Your task to perform on an android device: Go to calendar. Show me events next week Image 0: 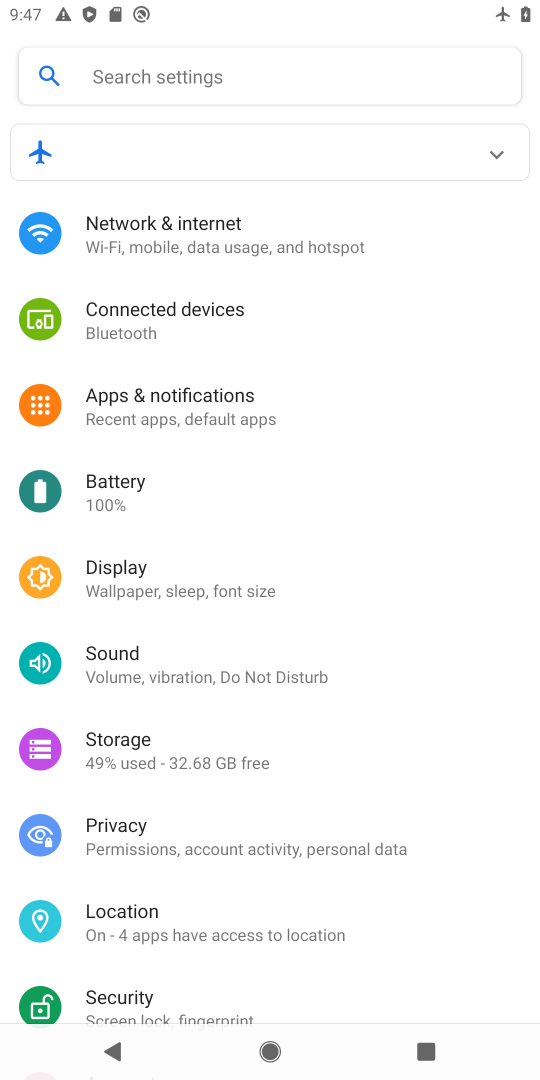
Step 0: press home button
Your task to perform on an android device: Go to calendar. Show me events next week Image 1: 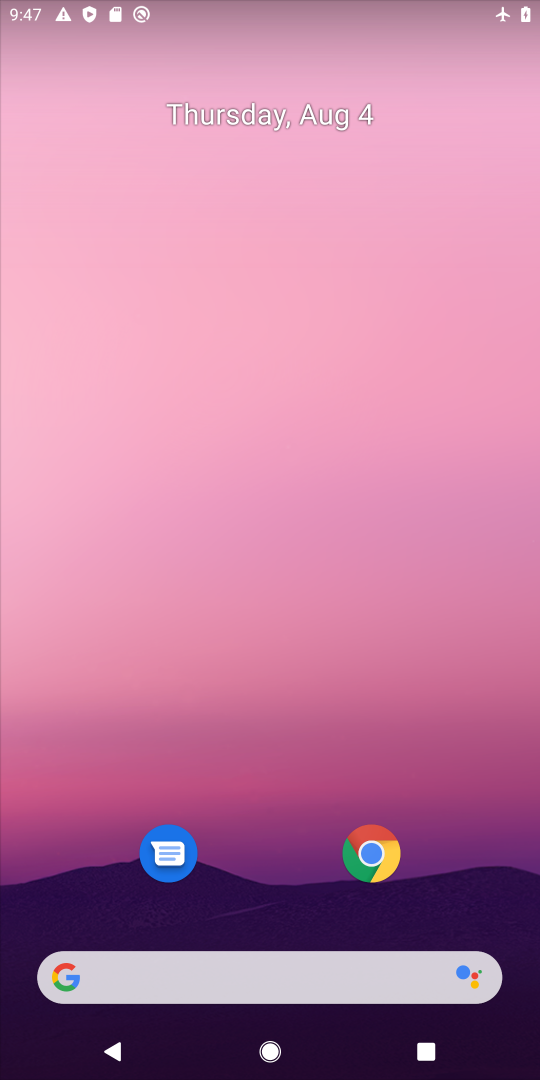
Step 1: click (234, 52)
Your task to perform on an android device: Go to calendar. Show me events next week Image 2: 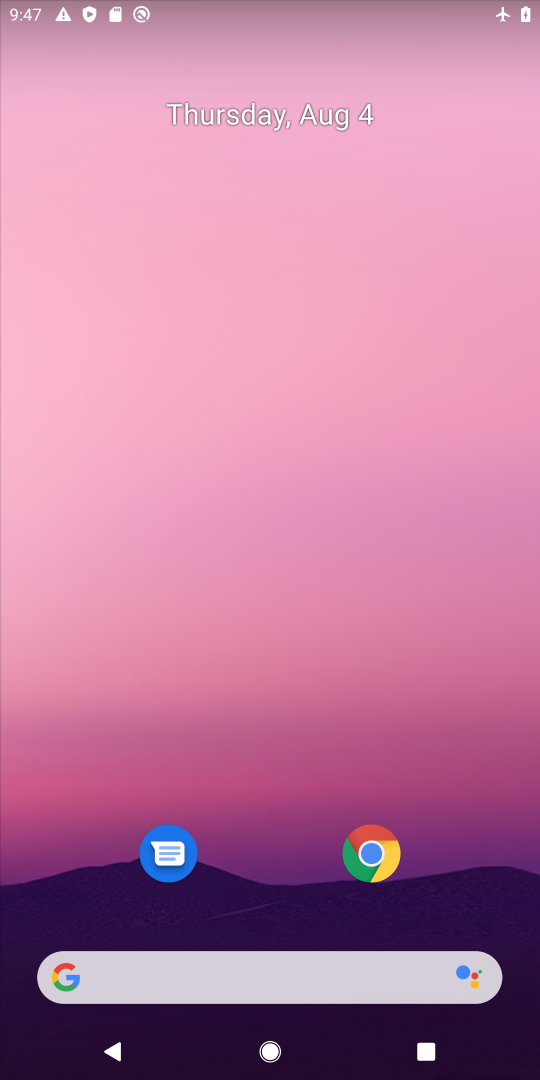
Step 2: drag from (225, 916) to (251, 1)
Your task to perform on an android device: Go to calendar. Show me events next week Image 3: 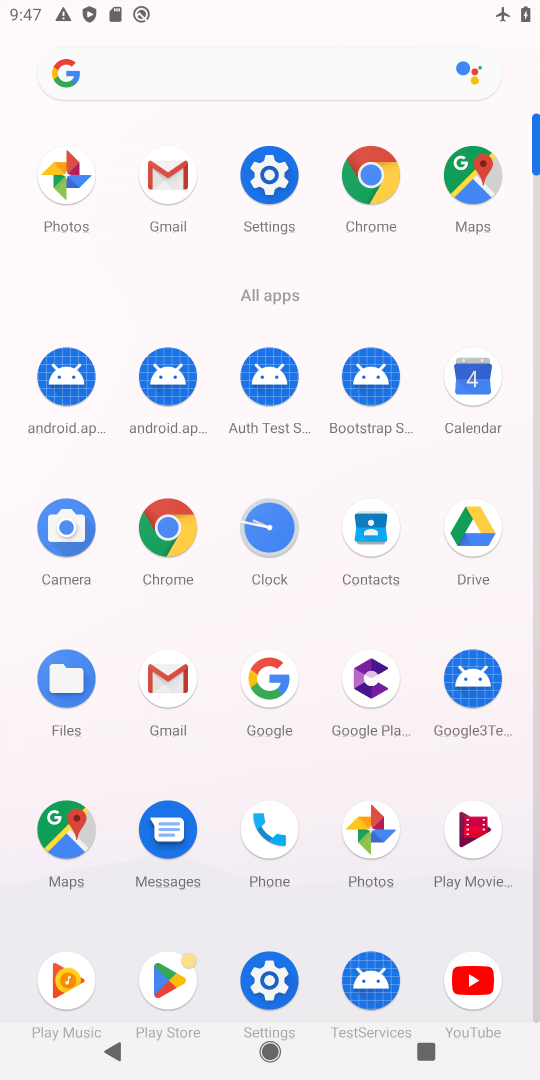
Step 3: click (466, 421)
Your task to perform on an android device: Go to calendar. Show me events next week Image 4: 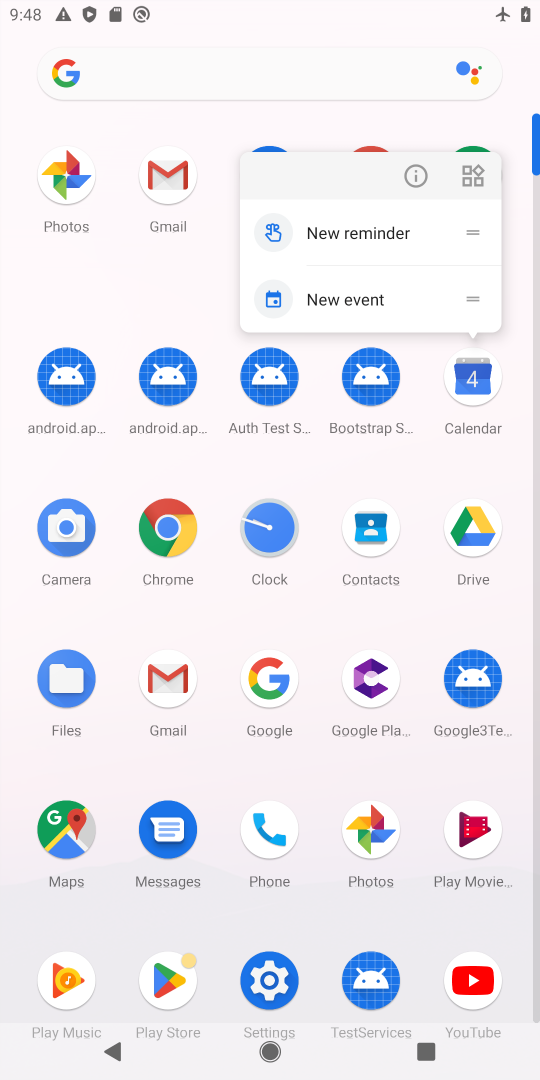
Step 4: click (466, 421)
Your task to perform on an android device: Go to calendar. Show me events next week Image 5: 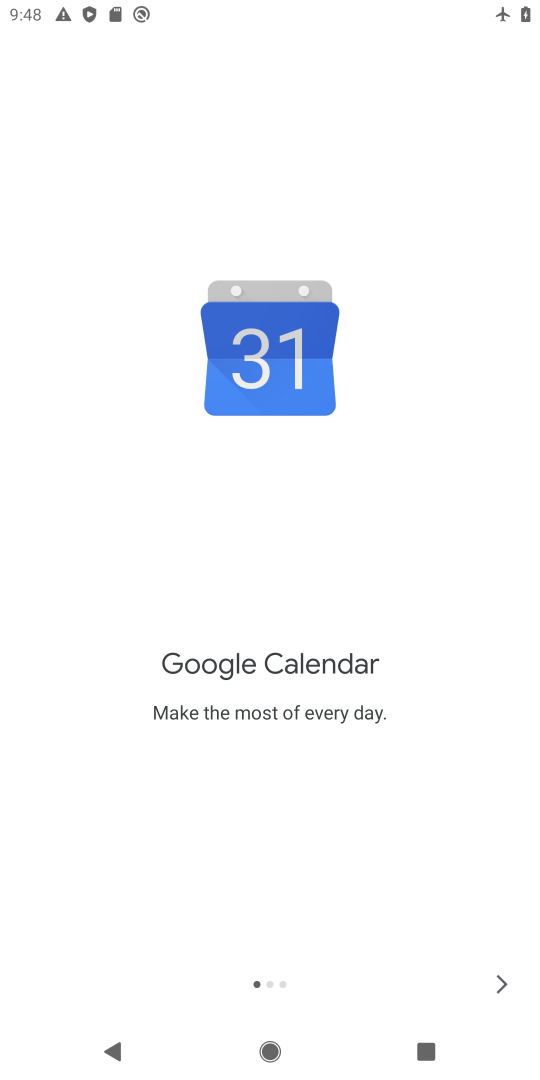
Step 5: click (493, 974)
Your task to perform on an android device: Go to calendar. Show me events next week Image 6: 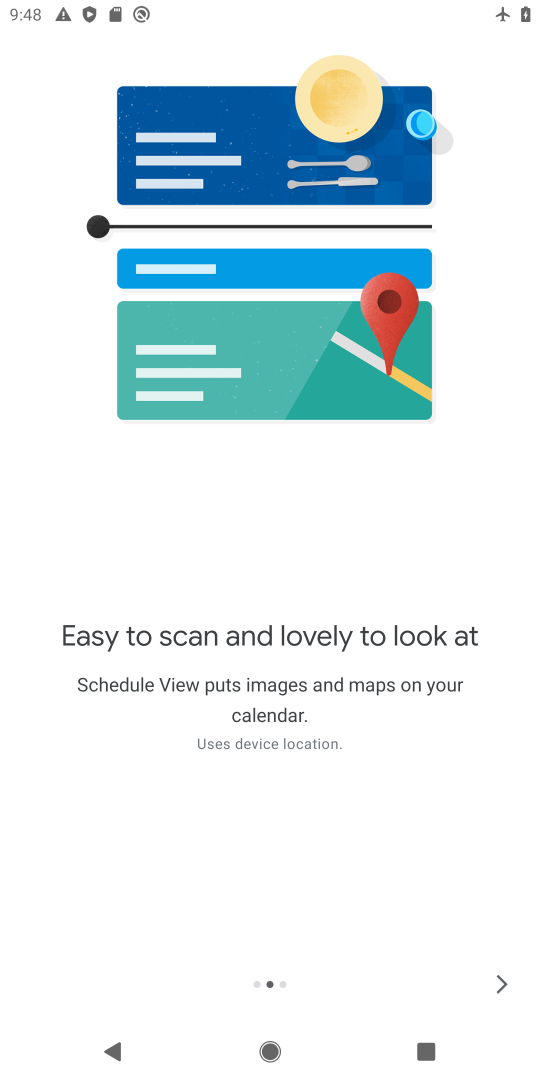
Step 6: click (492, 986)
Your task to perform on an android device: Go to calendar. Show me events next week Image 7: 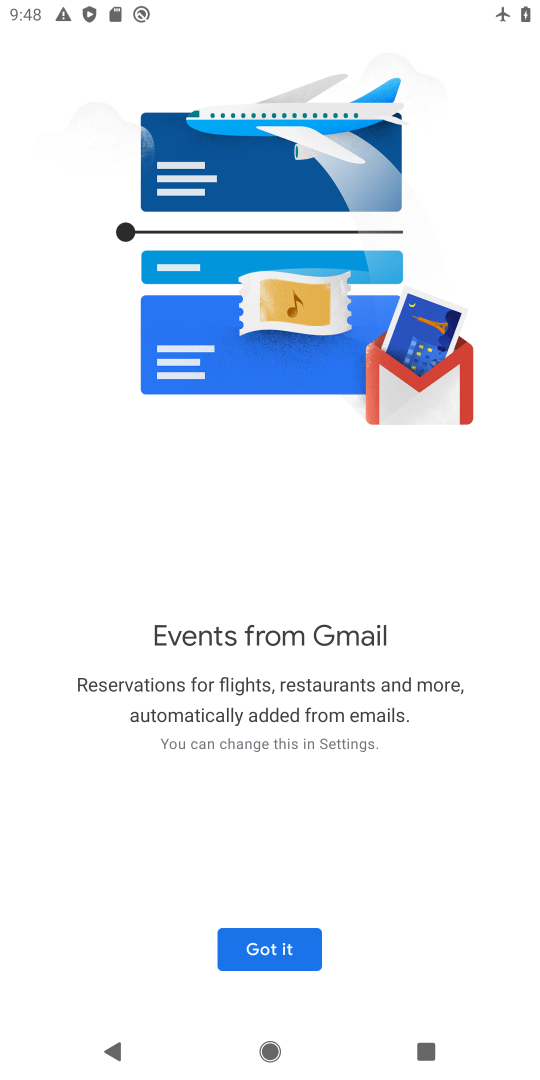
Step 7: click (283, 941)
Your task to perform on an android device: Go to calendar. Show me events next week Image 8: 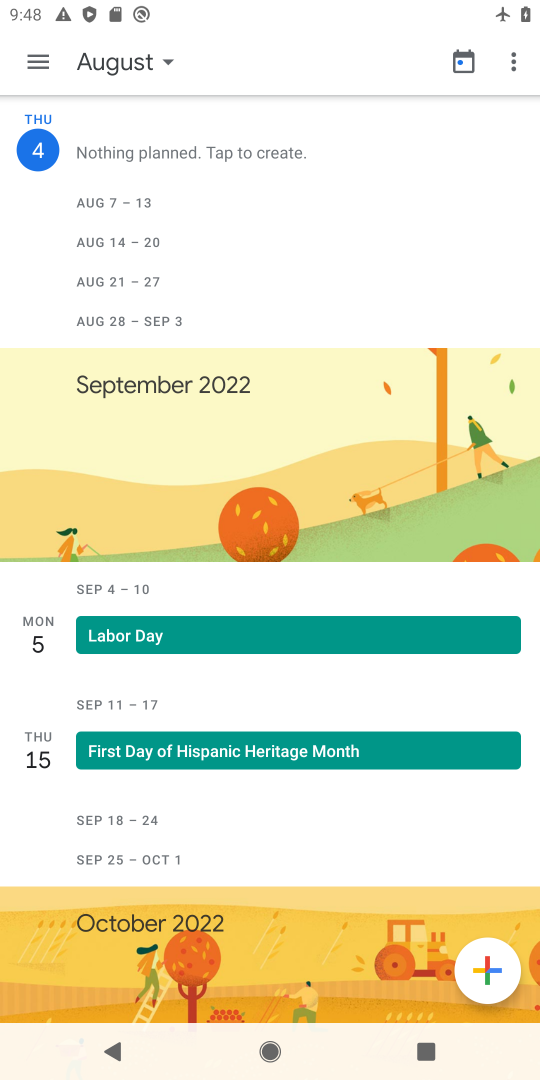
Step 8: click (36, 63)
Your task to perform on an android device: Go to calendar. Show me events next week Image 9: 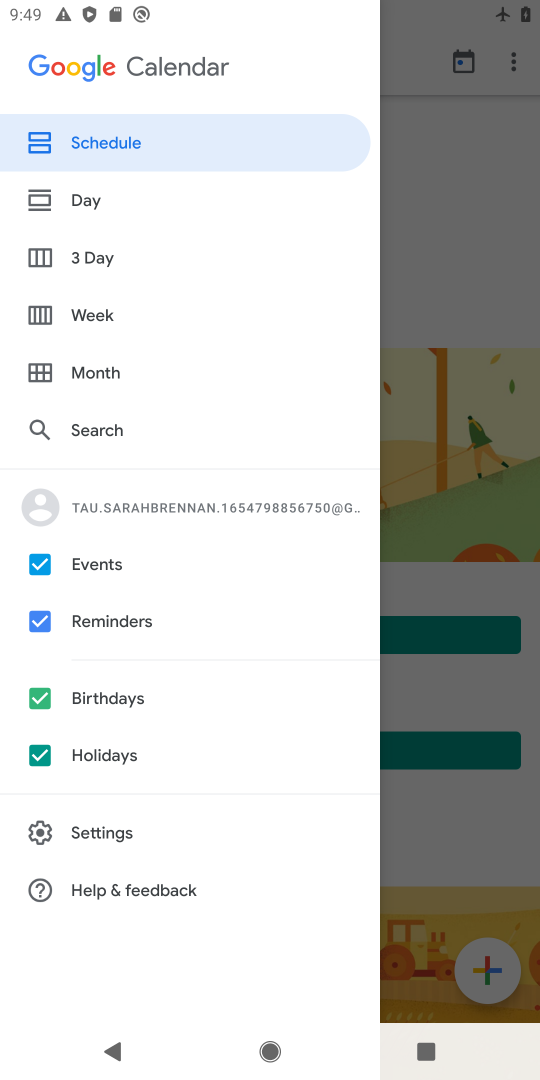
Step 9: click (123, 614)
Your task to perform on an android device: Go to calendar. Show me events next week Image 10: 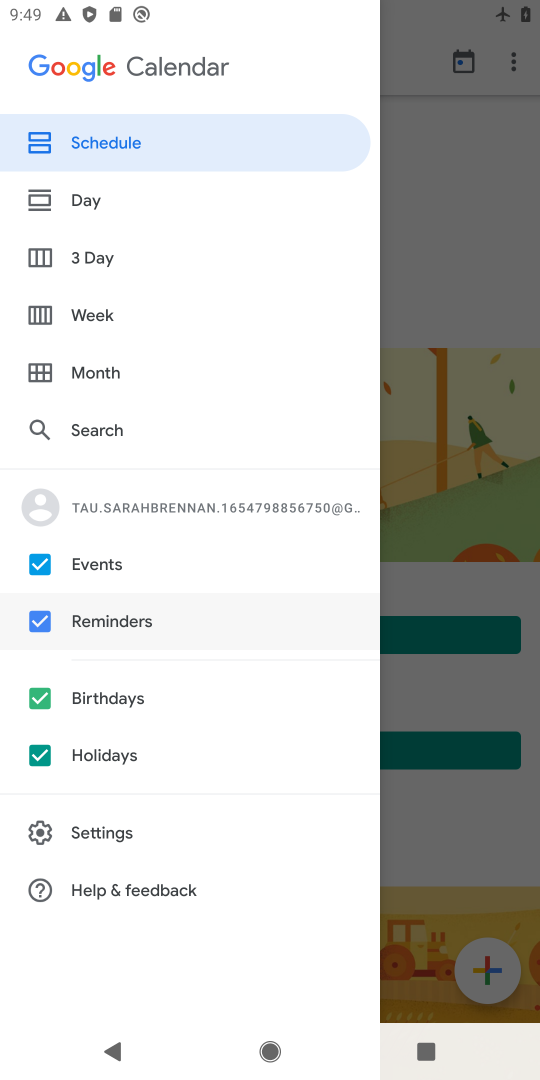
Step 10: click (106, 702)
Your task to perform on an android device: Go to calendar. Show me events next week Image 11: 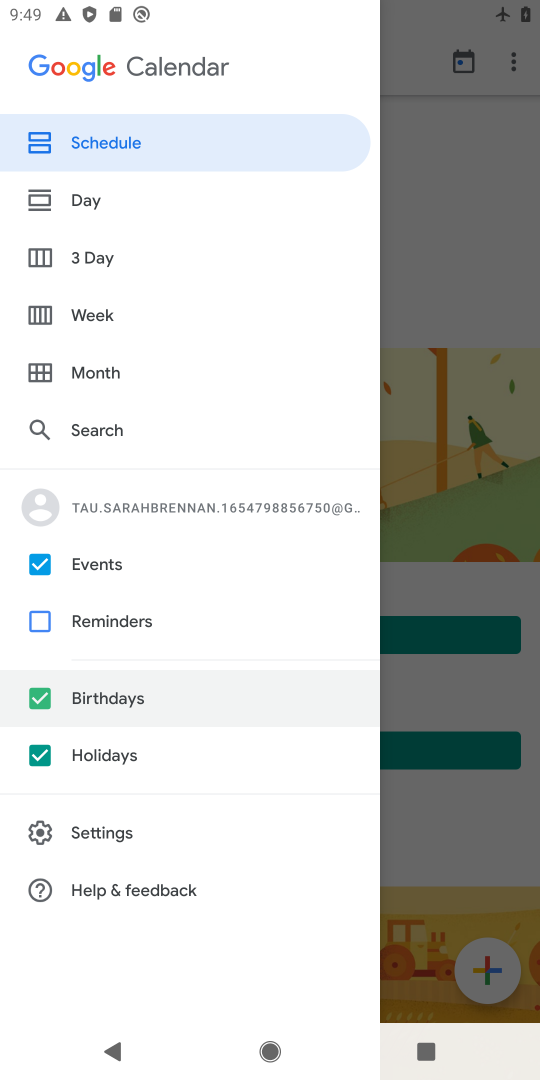
Step 11: click (91, 753)
Your task to perform on an android device: Go to calendar. Show me events next week Image 12: 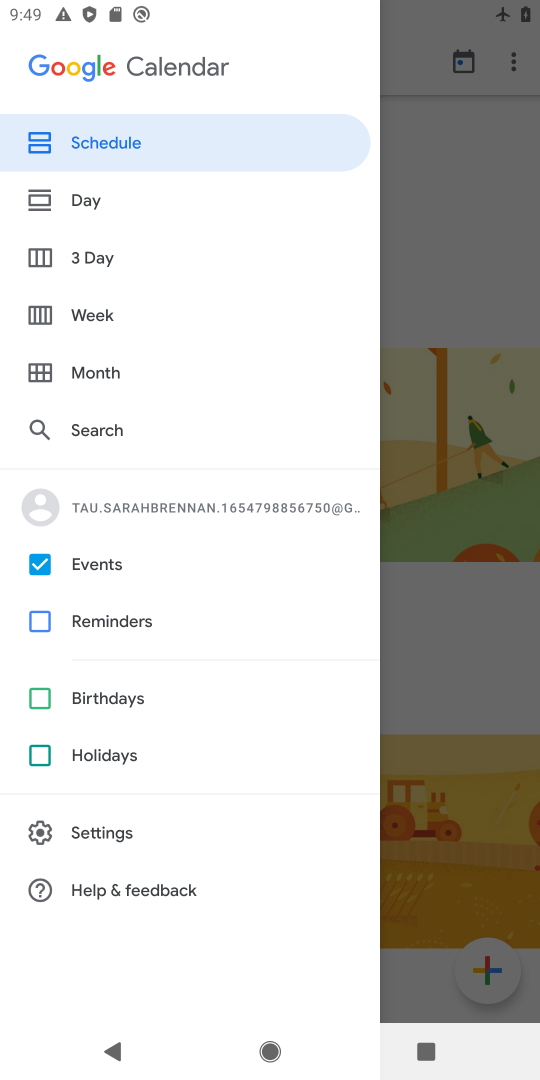
Step 12: click (103, 326)
Your task to perform on an android device: Go to calendar. Show me events next week Image 13: 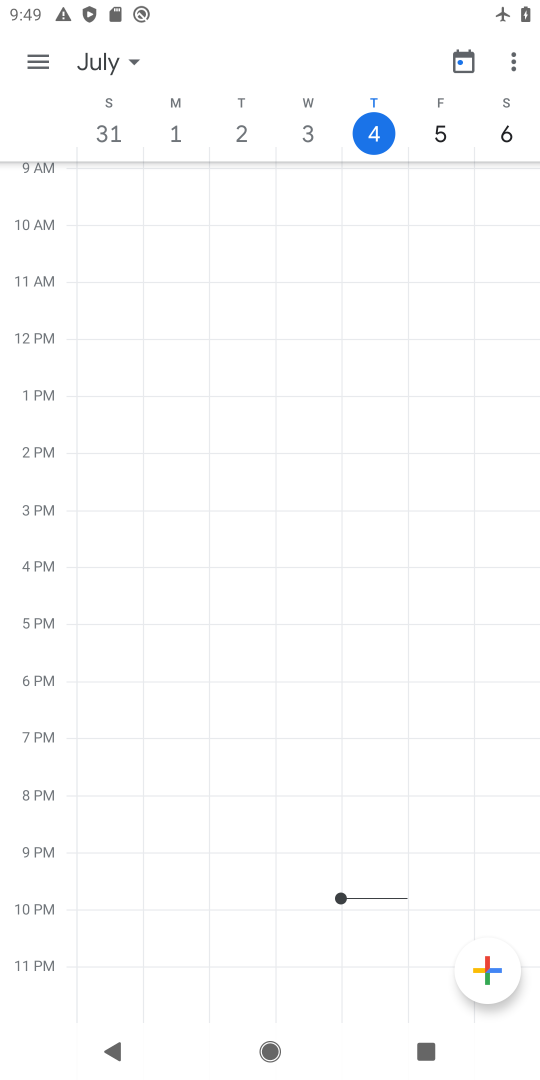
Step 13: task complete